Your task to perform on an android device: turn on priority inbox in the gmail app Image 0: 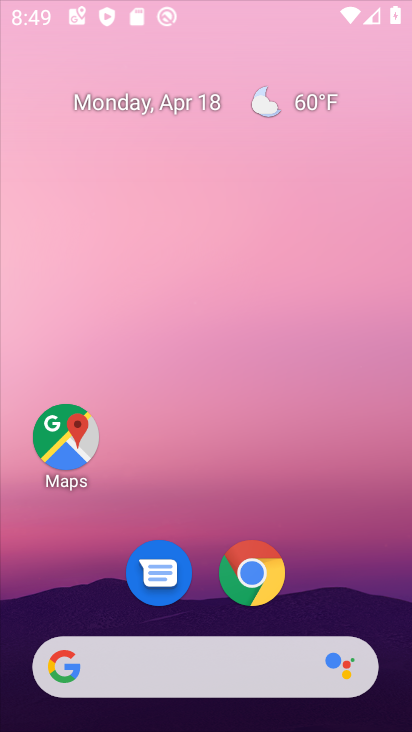
Step 0: click (327, 57)
Your task to perform on an android device: turn on priority inbox in the gmail app Image 1: 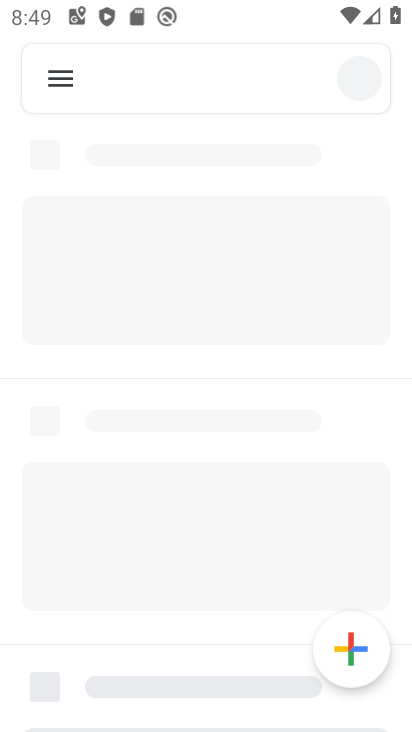
Step 1: drag from (336, 590) to (346, 204)
Your task to perform on an android device: turn on priority inbox in the gmail app Image 2: 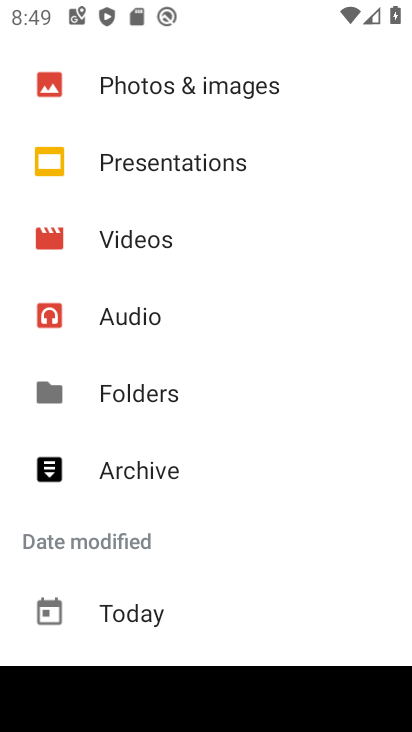
Step 2: press home button
Your task to perform on an android device: turn on priority inbox in the gmail app Image 3: 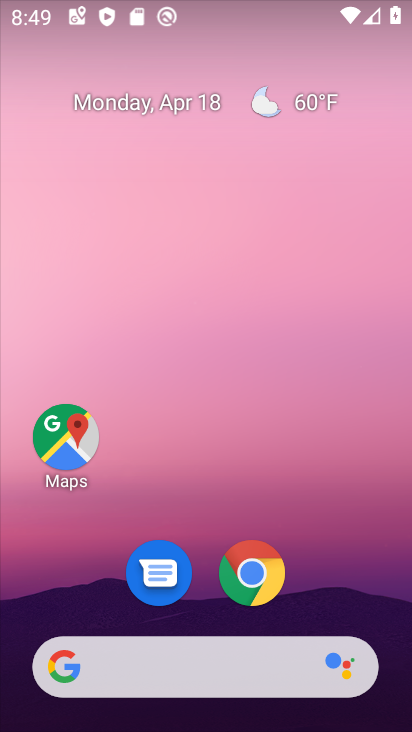
Step 3: drag from (331, 491) to (307, 38)
Your task to perform on an android device: turn on priority inbox in the gmail app Image 4: 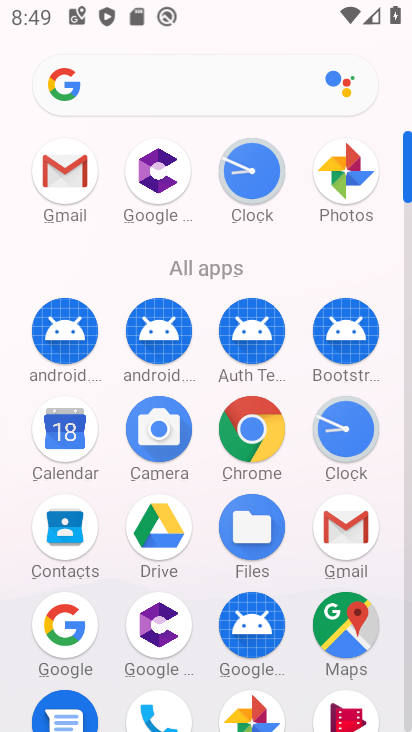
Step 4: click (352, 535)
Your task to perform on an android device: turn on priority inbox in the gmail app Image 5: 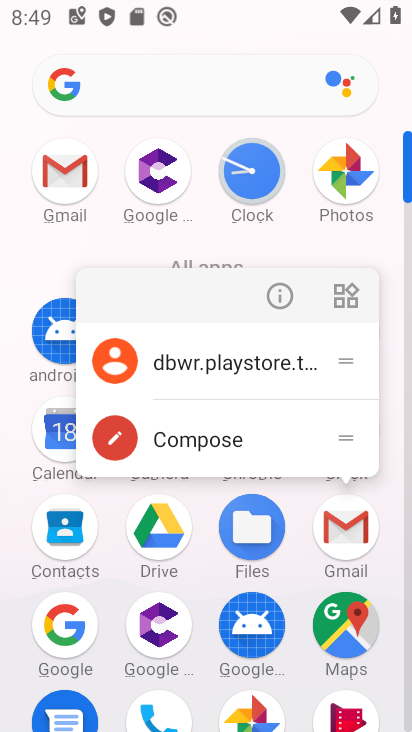
Step 5: click (352, 535)
Your task to perform on an android device: turn on priority inbox in the gmail app Image 6: 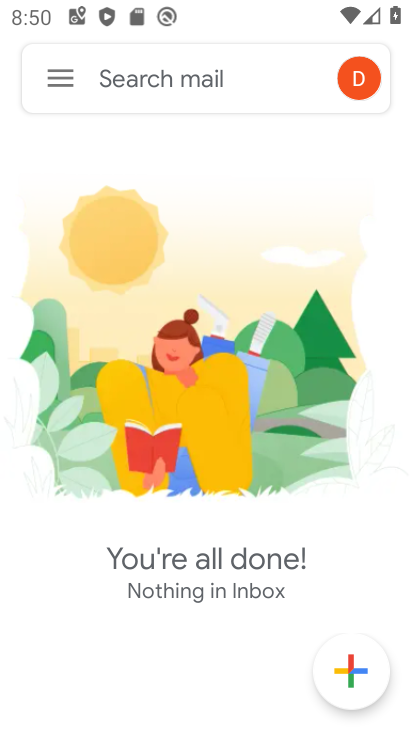
Step 6: click (67, 80)
Your task to perform on an android device: turn on priority inbox in the gmail app Image 7: 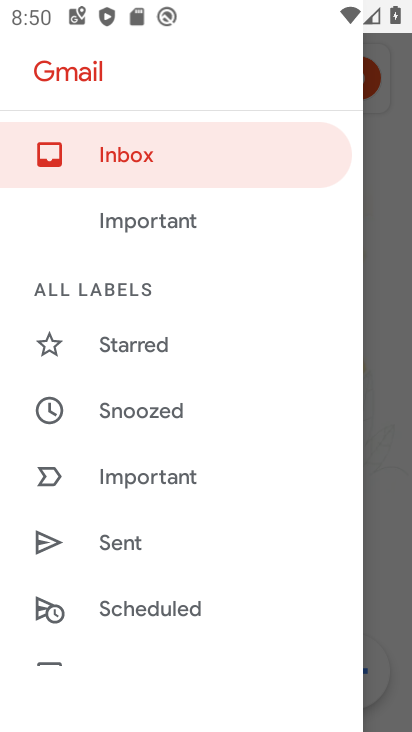
Step 7: drag from (156, 612) to (128, 115)
Your task to perform on an android device: turn on priority inbox in the gmail app Image 8: 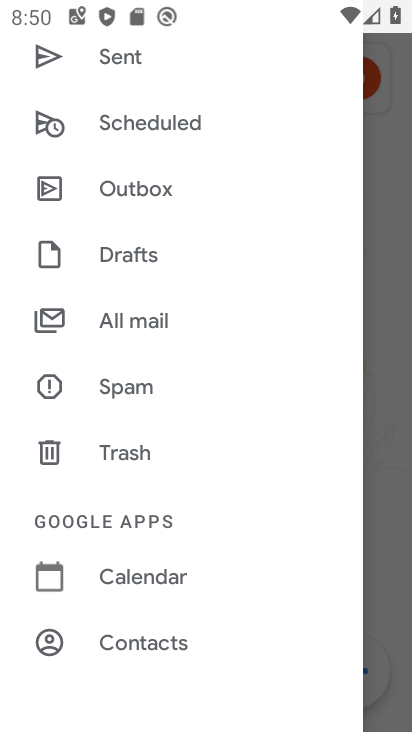
Step 8: drag from (159, 634) to (153, 184)
Your task to perform on an android device: turn on priority inbox in the gmail app Image 9: 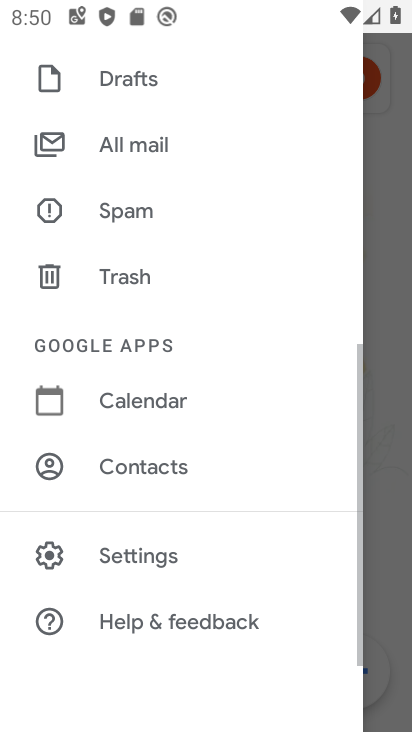
Step 9: click (125, 549)
Your task to perform on an android device: turn on priority inbox in the gmail app Image 10: 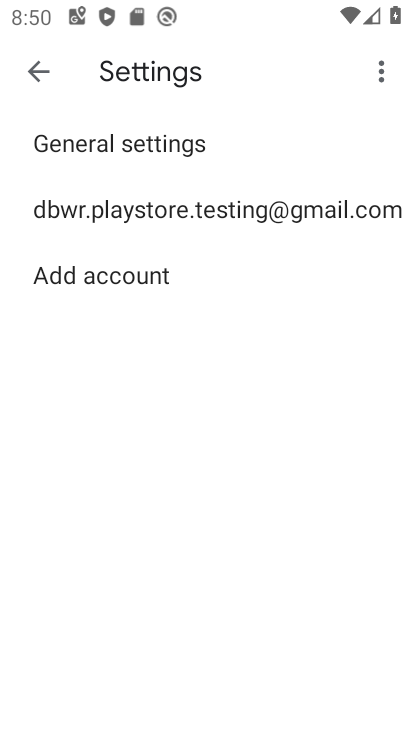
Step 10: click (186, 208)
Your task to perform on an android device: turn on priority inbox in the gmail app Image 11: 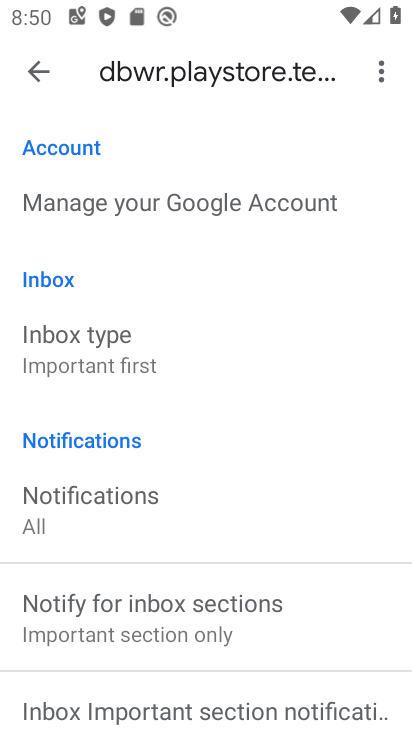
Step 11: click (87, 363)
Your task to perform on an android device: turn on priority inbox in the gmail app Image 12: 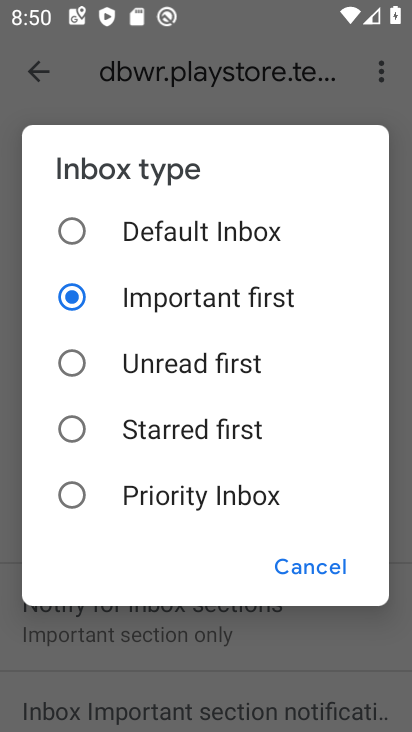
Step 12: click (167, 491)
Your task to perform on an android device: turn on priority inbox in the gmail app Image 13: 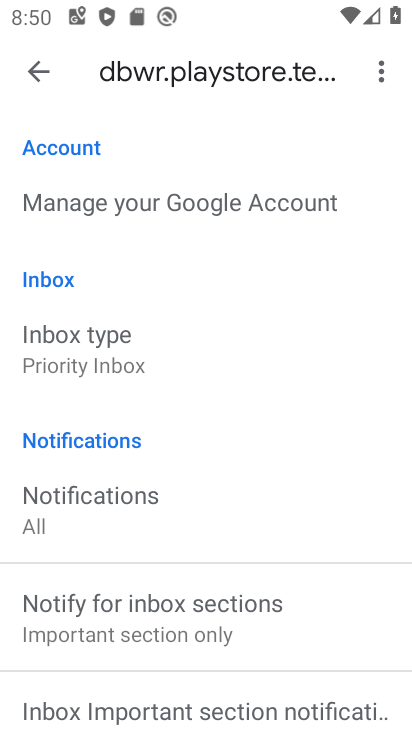
Step 13: task complete